Your task to perform on an android device: Check the weather Image 0: 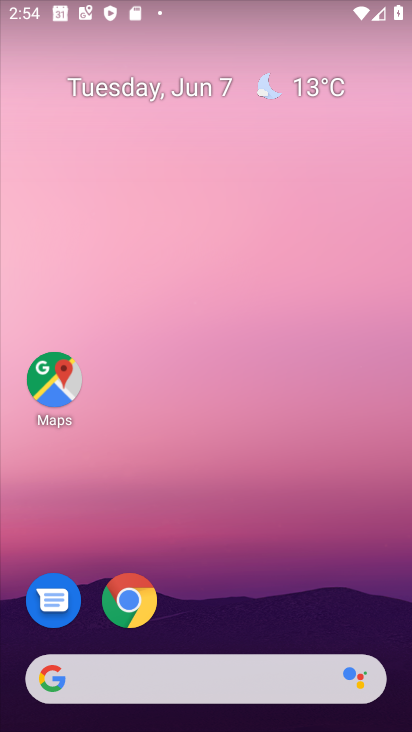
Step 0: drag from (203, 629) to (188, 195)
Your task to perform on an android device: Check the weather Image 1: 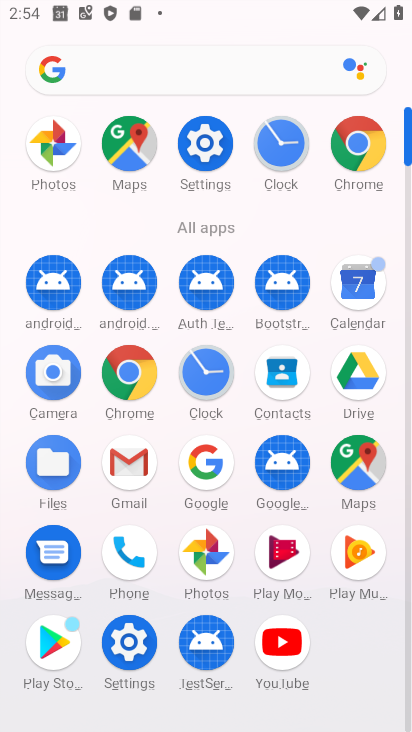
Step 1: click (209, 467)
Your task to perform on an android device: Check the weather Image 2: 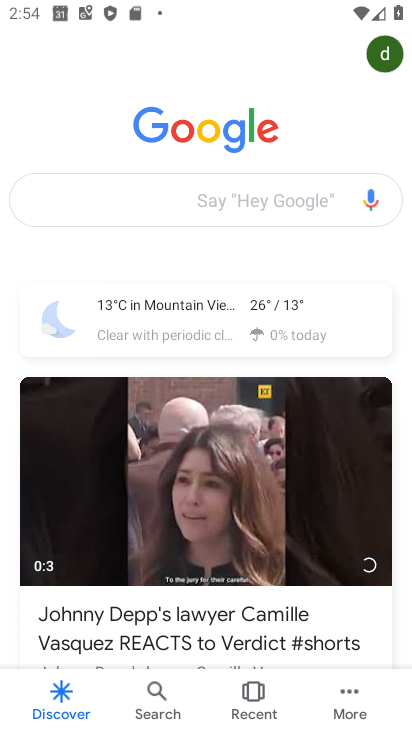
Step 2: click (161, 195)
Your task to perform on an android device: Check the weather Image 3: 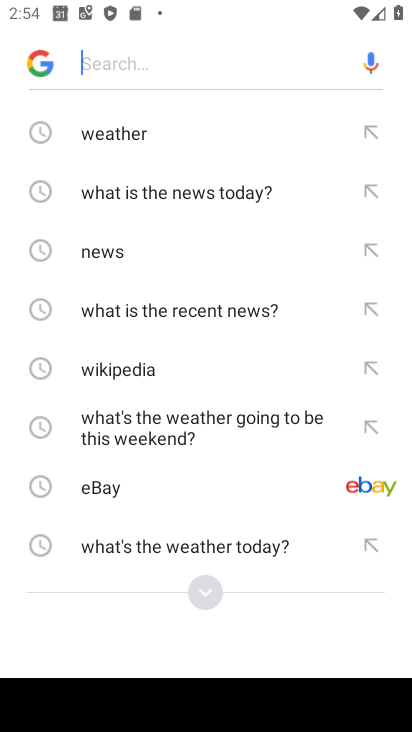
Step 3: click (119, 137)
Your task to perform on an android device: Check the weather Image 4: 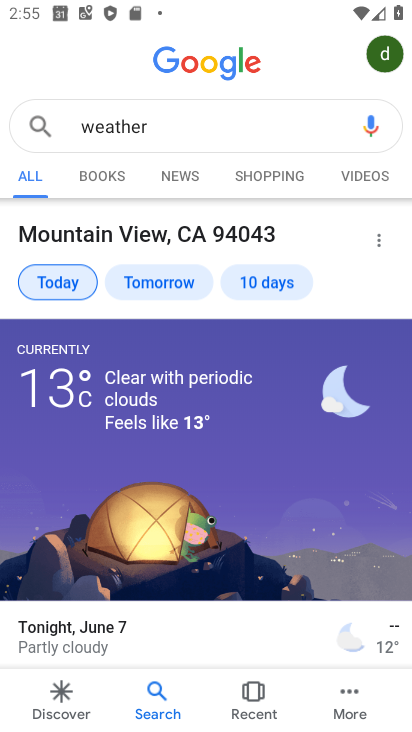
Step 4: task complete